Your task to perform on an android device: Open wifi settings Image 0: 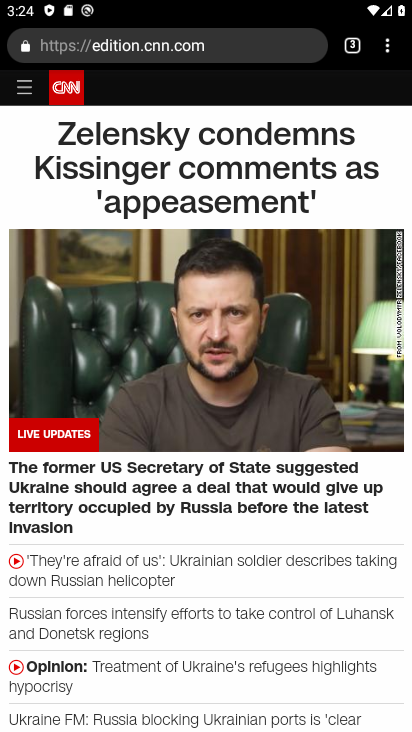
Step 0: press back button
Your task to perform on an android device: Open wifi settings Image 1: 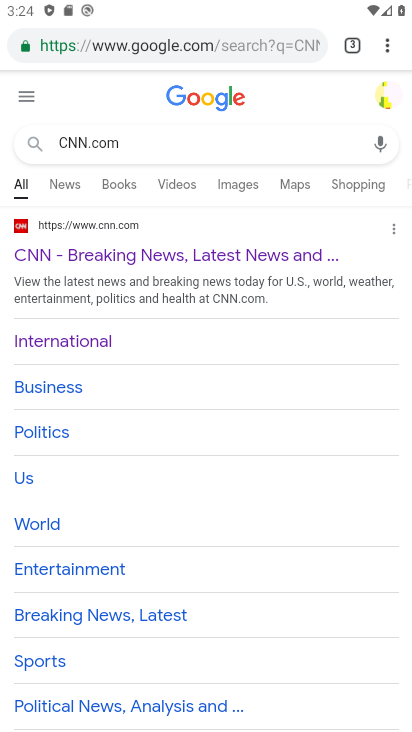
Step 1: press back button
Your task to perform on an android device: Open wifi settings Image 2: 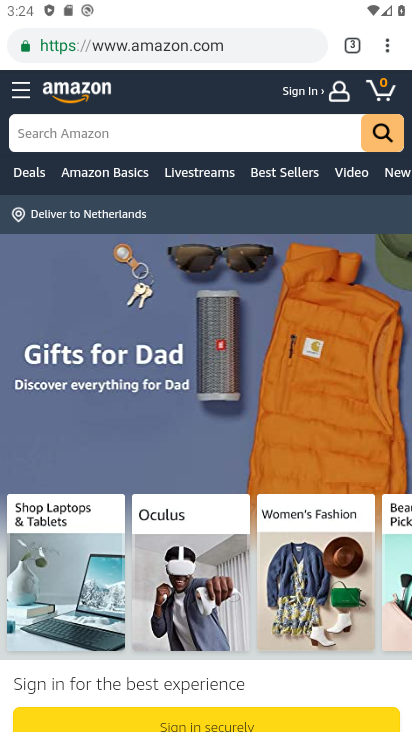
Step 2: press back button
Your task to perform on an android device: Open wifi settings Image 3: 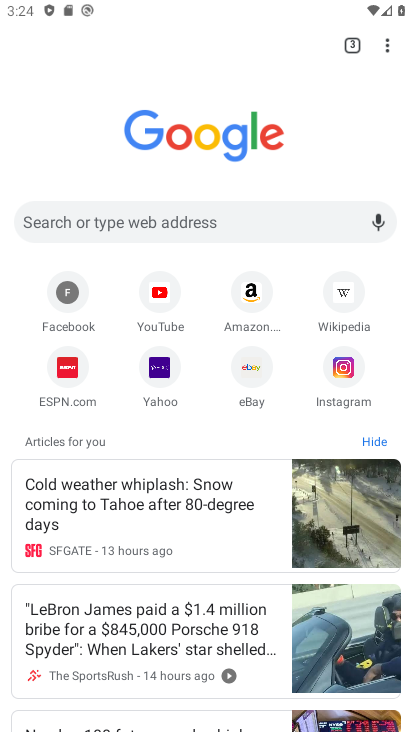
Step 3: press back button
Your task to perform on an android device: Open wifi settings Image 4: 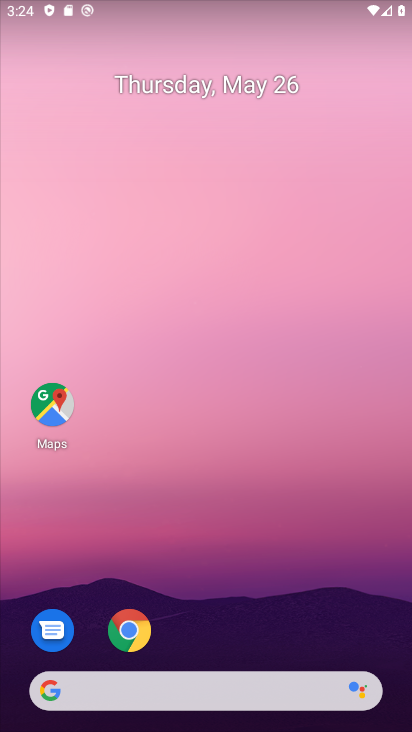
Step 4: drag from (245, 597) to (215, 152)
Your task to perform on an android device: Open wifi settings Image 5: 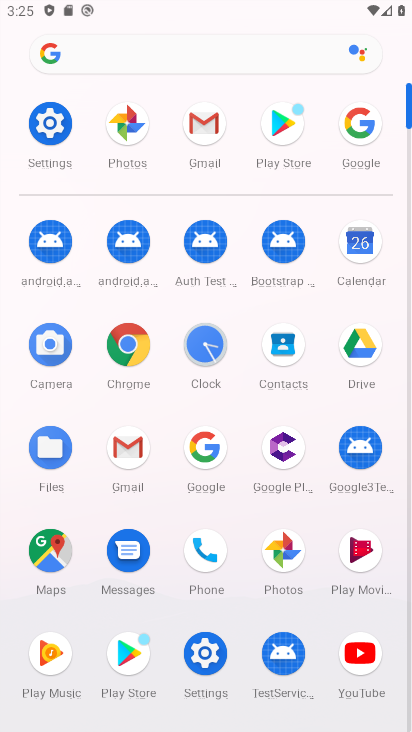
Step 5: click (50, 123)
Your task to perform on an android device: Open wifi settings Image 6: 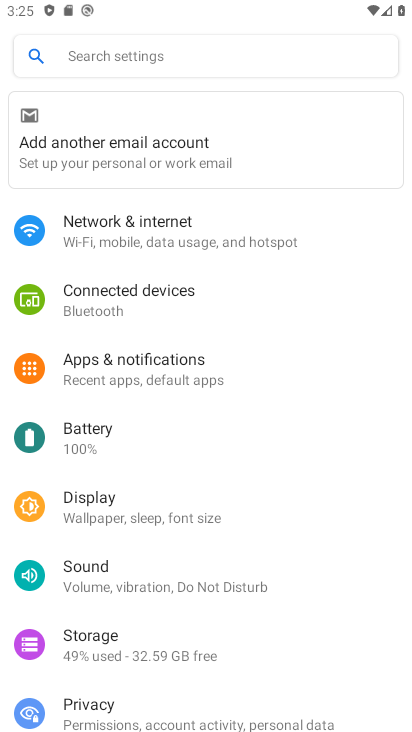
Step 6: click (118, 236)
Your task to perform on an android device: Open wifi settings Image 7: 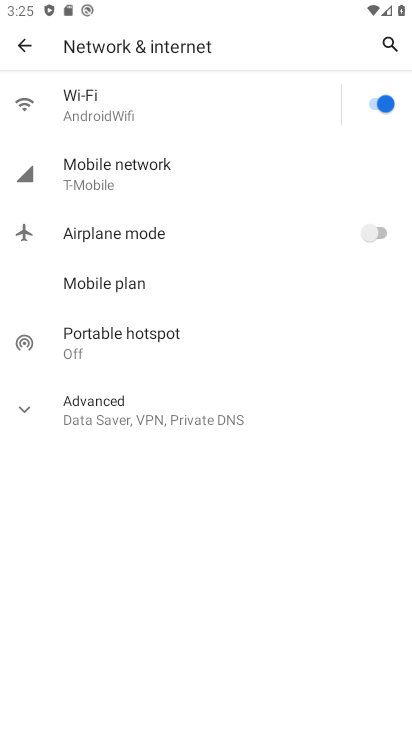
Step 7: click (82, 110)
Your task to perform on an android device: Open wifi settings Image 8: 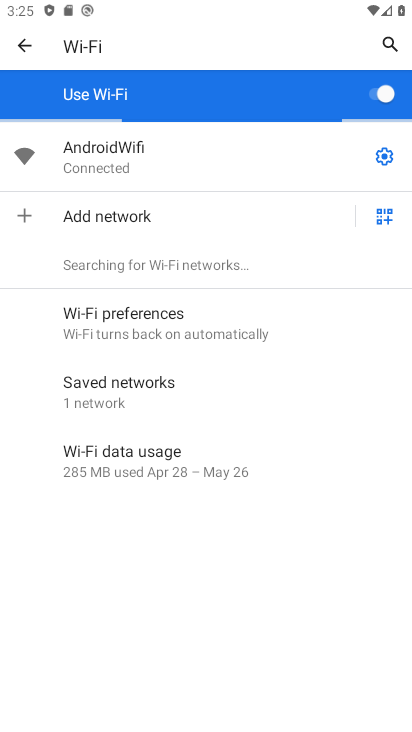
Step 8: click (386, 157)
Your task to perform on an android device: Open wifi settings Image 9: 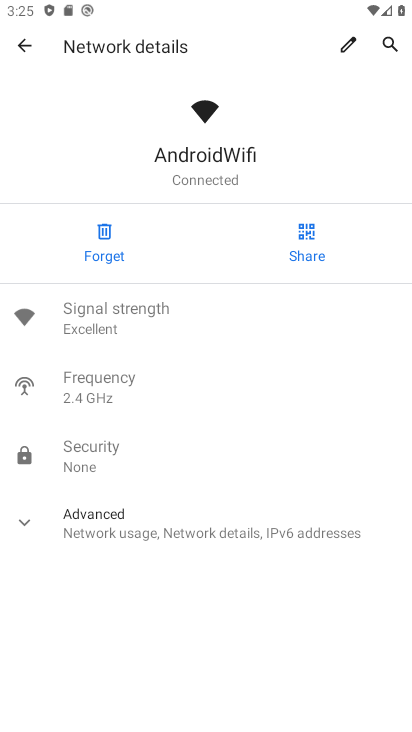
Step 9: task complete